Your task to perform on an android device: Open settings on Google Maps Image 0: 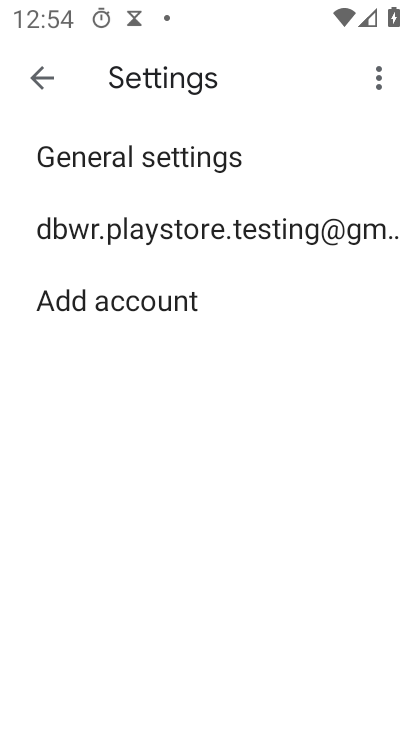
Step 0: press home button
Your task to perform on an android device: Open settings on Google Maps Image 1: 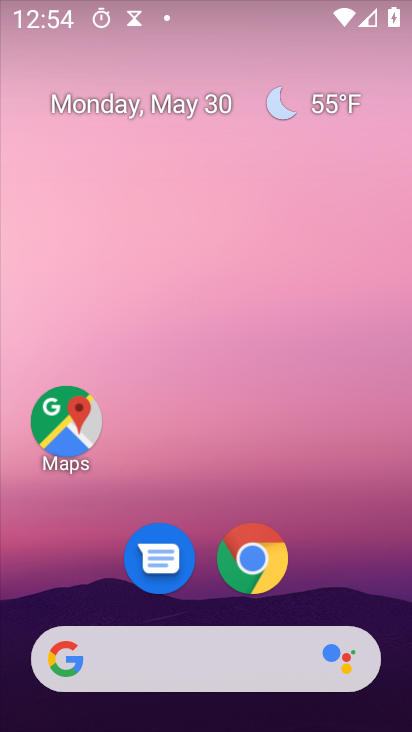
Step 1: drag from (332, 454) to (281, 2)
Your task to perform on an android device: Open settings on Google Maps Image 2: 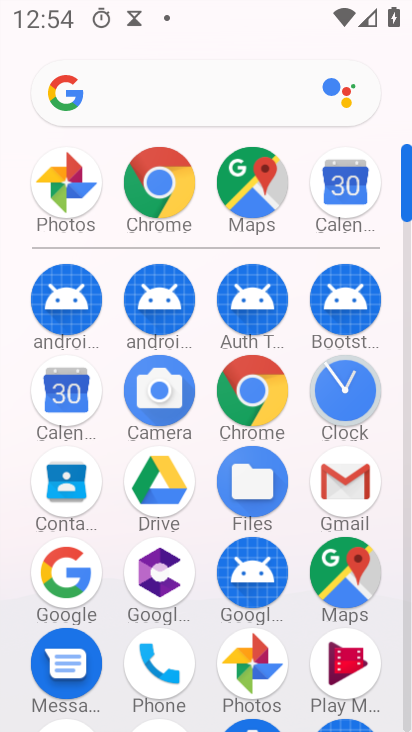
Step 2: click (245, 195)
Your task to perform on an android device: Open settings on Google Maps Image 3: 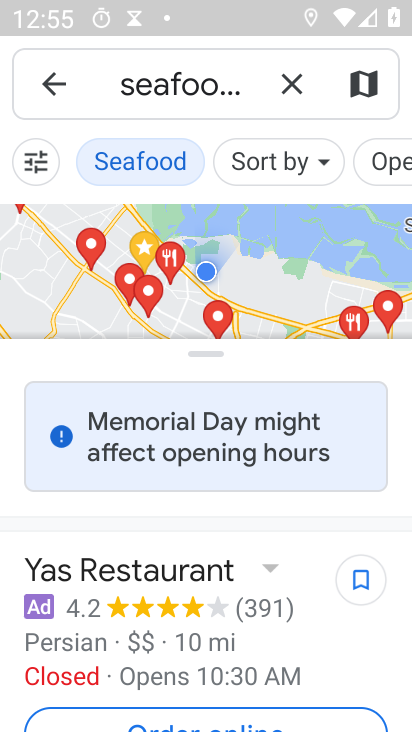
Step 3: task complete